Your task to perform on an android device: check data usage Image 0: 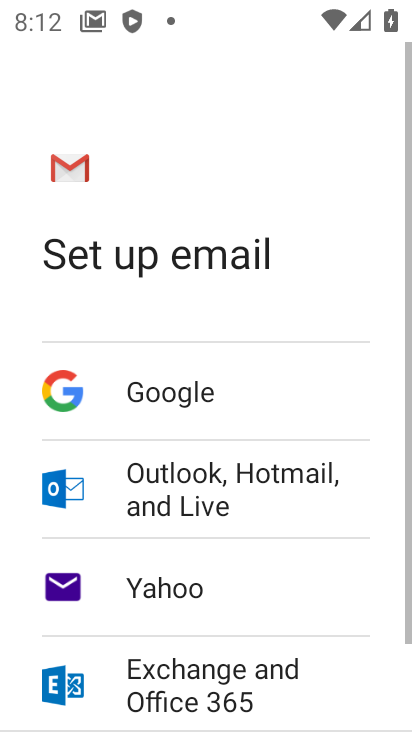
Step 0: press home button
Your task to perform on an android device: check data usage Image 1: 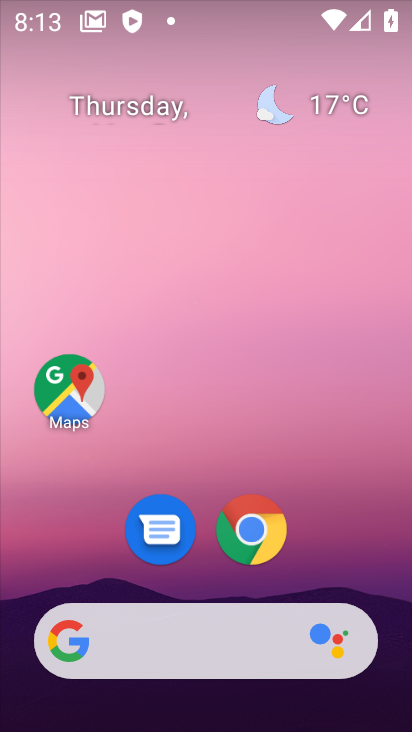
Step 1: drag from (359, 523) to (257, 97)
Your task to perform on an android device: check data usage Image 2: 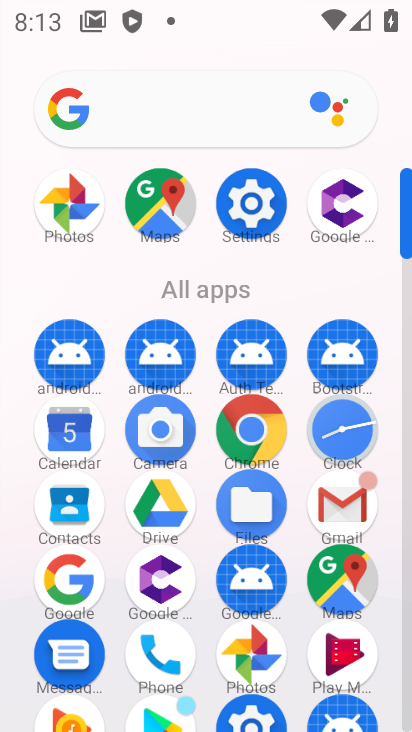
Step 2: click (251, 208)
Your task to perform on an android device: check data usage Image 3: 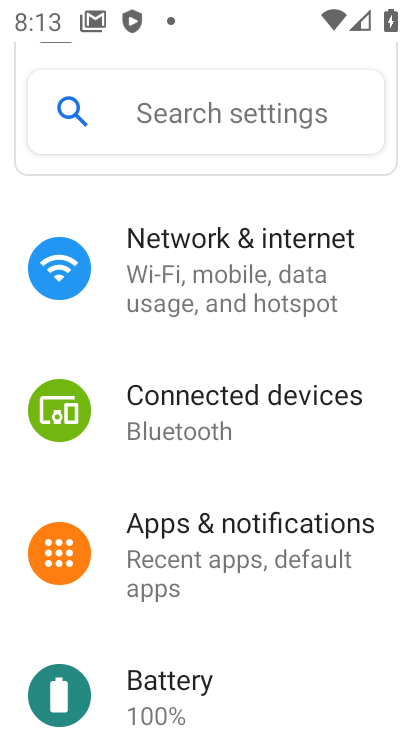
Step 3: click (245, 245)
Your task to perform on an android device: check data usage Image 4: 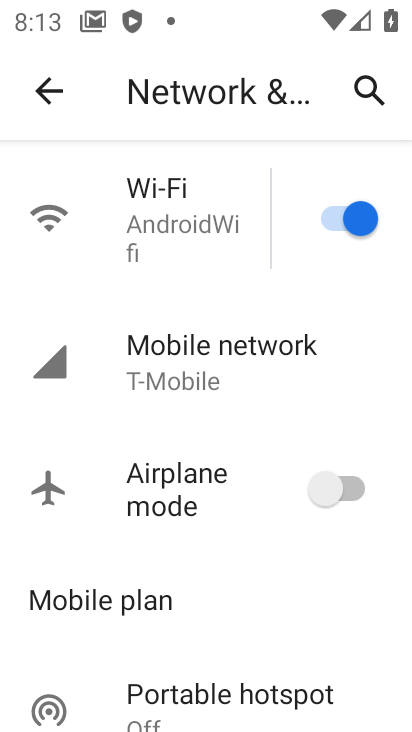
Step 4: click (203, 344)
Your task to perform on an android device: check data usage Image 5: 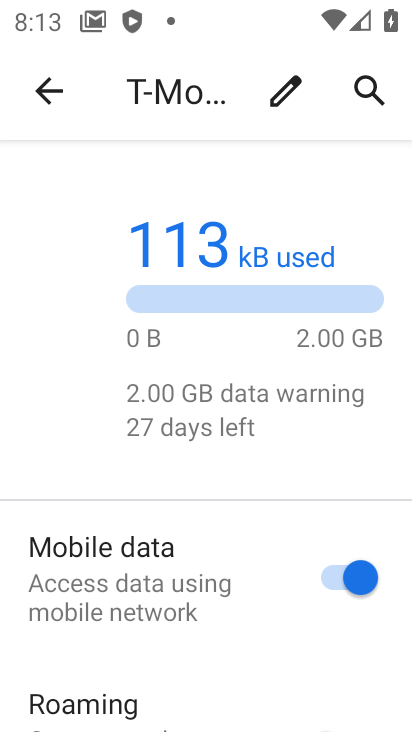
Step 5: task complete